Your task to perform on an android device: turn on translation in the chrome app Image 0: 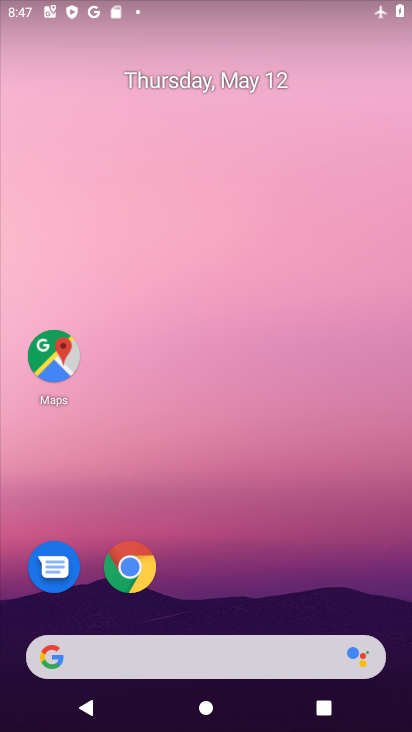
Step 0: drag from (253, 675) to (257, 190)
Your task to perform on an android device: turn on translation in the chrome app Image 1: 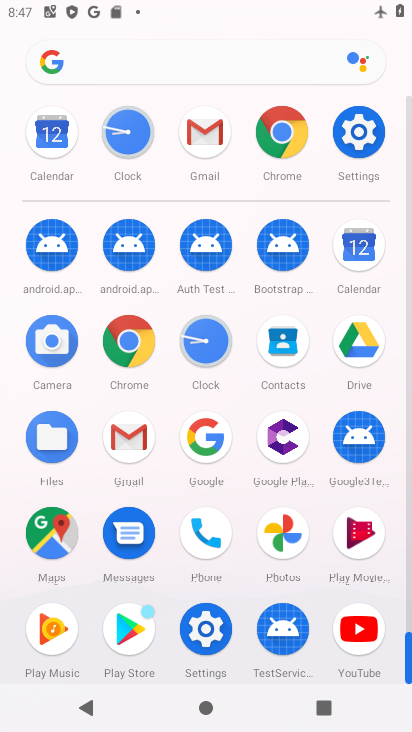
Step 1: click (270, 169)
Your task to perform on an android device: turn on translation in the chrome app Image 2: 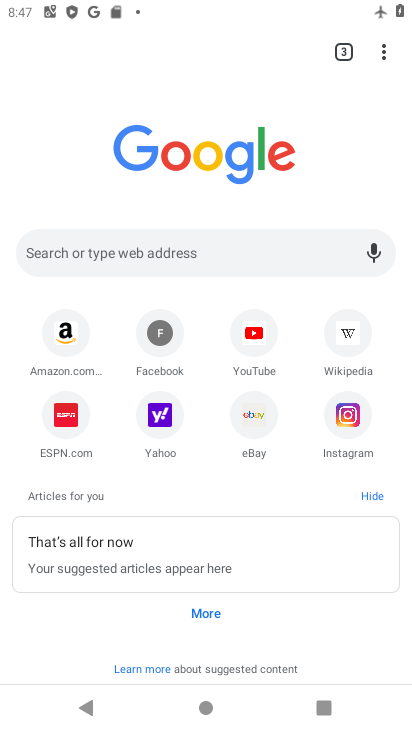
Step 2: click (385, 50)
Your task to perform on an android device: turn on translation in the chrome app Image 3: 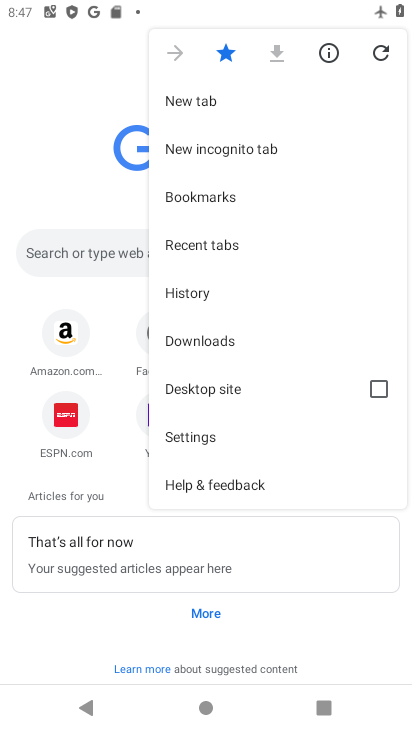
Step 3: drag from (221, 403) to (252, 100)
Your task to perform on an android device: turn on translation in the chrome app Image 4: 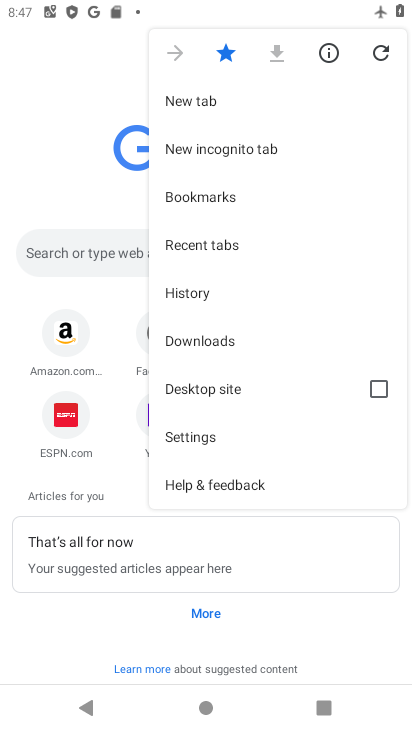
Step 4: click (195, 437)
Your task to perform on an android device: turn on translation in the chrome app Image 5: 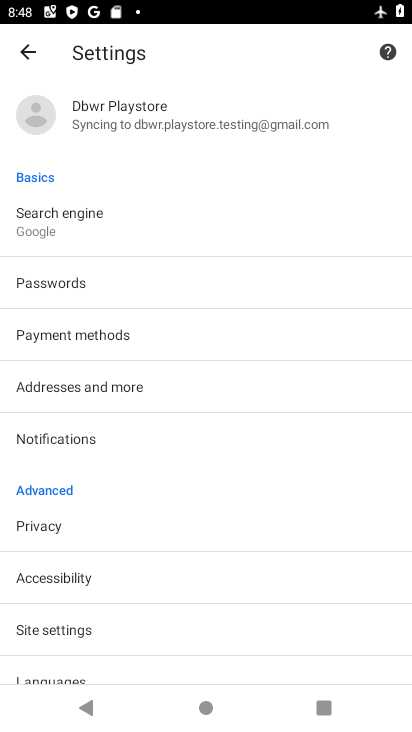
Step 5: task complete